Your task to perform on an android device: allow notifications from all sites in the chrome app Image 0: 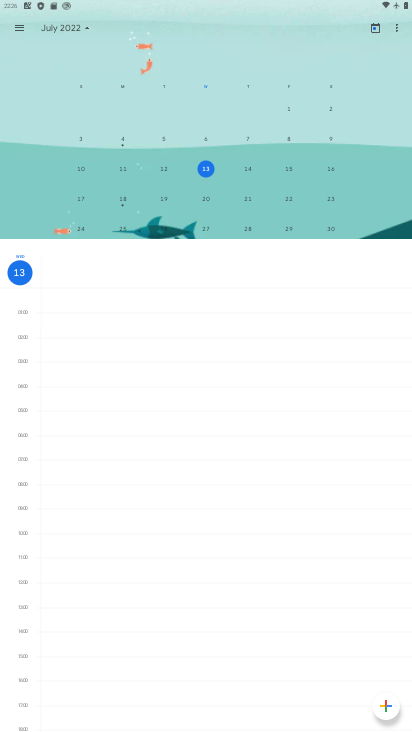
Step 0: press home button
Your task to perform on an android device: allow notifications from all sites in the chrome app Image 1: 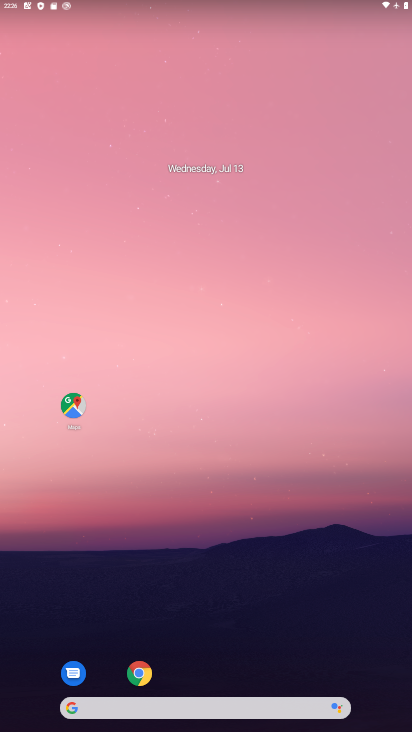
Step 1: click (137, 661)
Your task to perform on an android device: allow notifications from all sites in the chrome app Image 2: 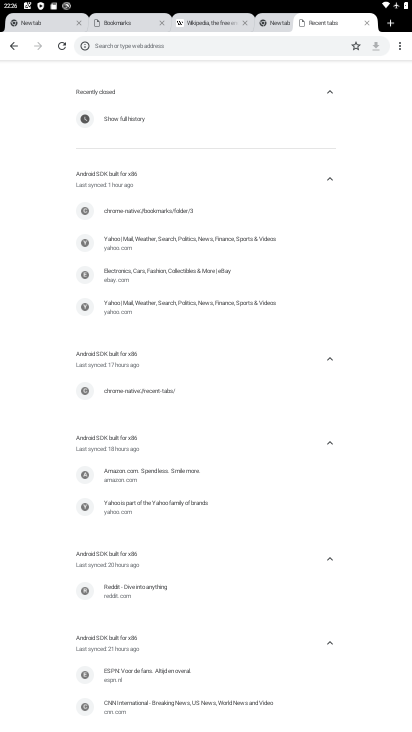
Step 2: click (396, 42)
Your task to perform on an android device: allow notifications from all sites in the chrome app Image 3: 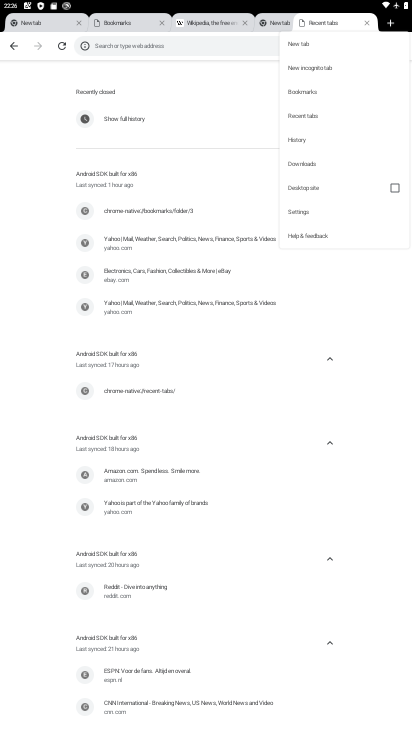
Step 3: click (311, 210)
Your task to perform on an android device: allow notifications from all sites in the chrome app Image 4: 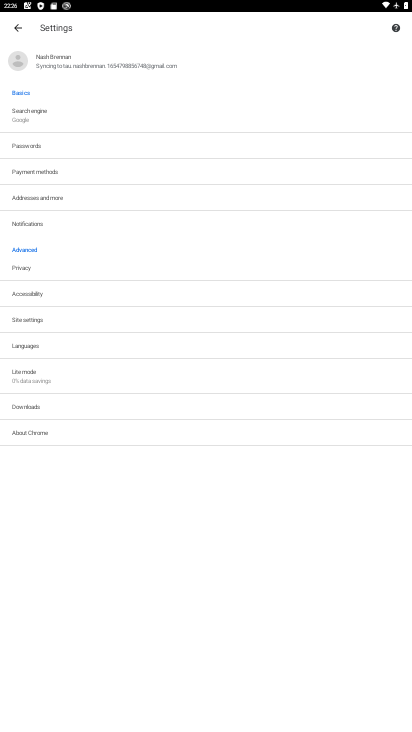
Step 4: click (35, 323)
Your task to perform on an android device: allow notifications from all sites in the chrome app Image 5: 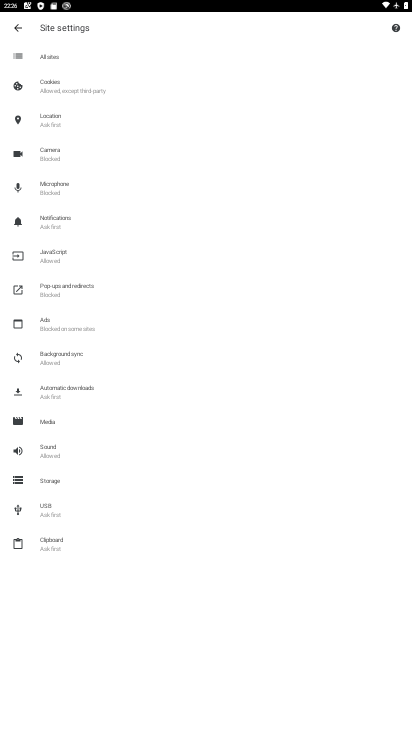
Step 5: click (46, 62)
Your task to perform on an android device: allow notifications from all sites in the chrome app Image 6: 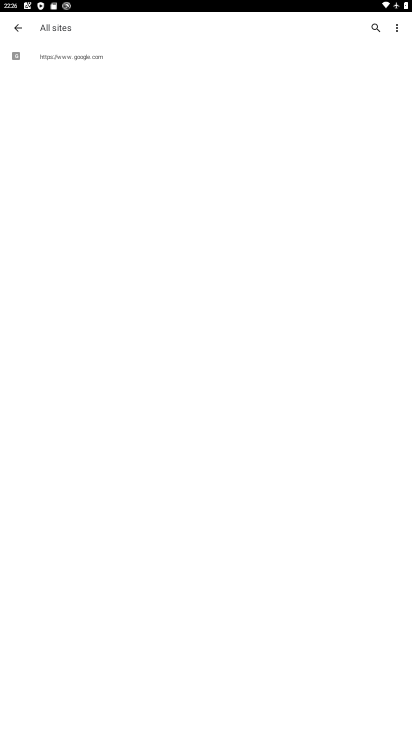
Step 6: click (130, 58)
Your task to perform on an android device: allow notifications from all sites in the chrome app Image 7: 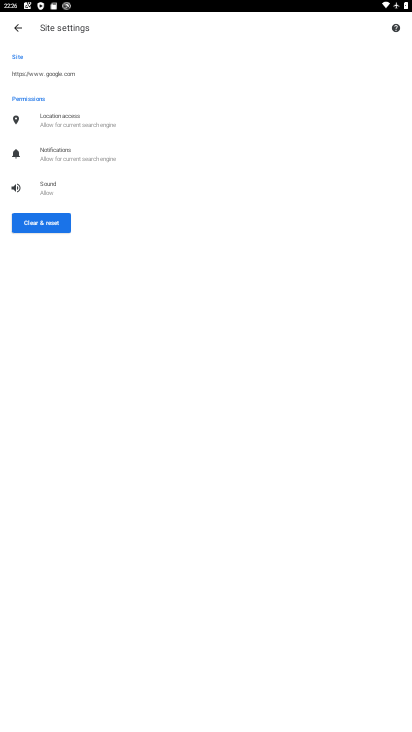
Step 7: click (82, 150)
Your task to perform on an android device: allow notifications from all sites in the chrome app Image 8: 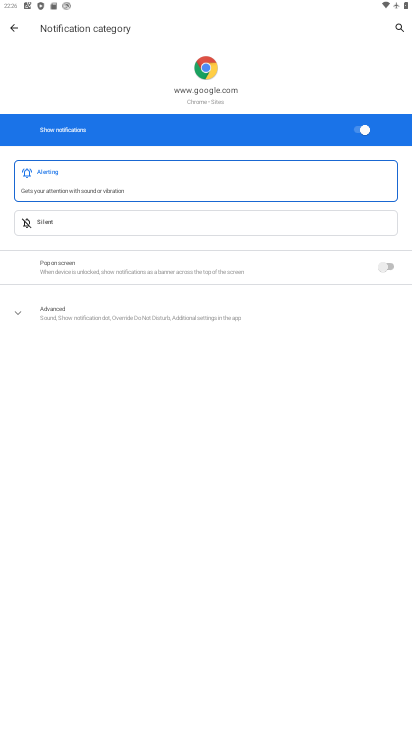
Step 8: task complete